Your task to perform on an android device: Clear the cart on costco.com. Add "razer naga" to the cart on costco.com Image 0: 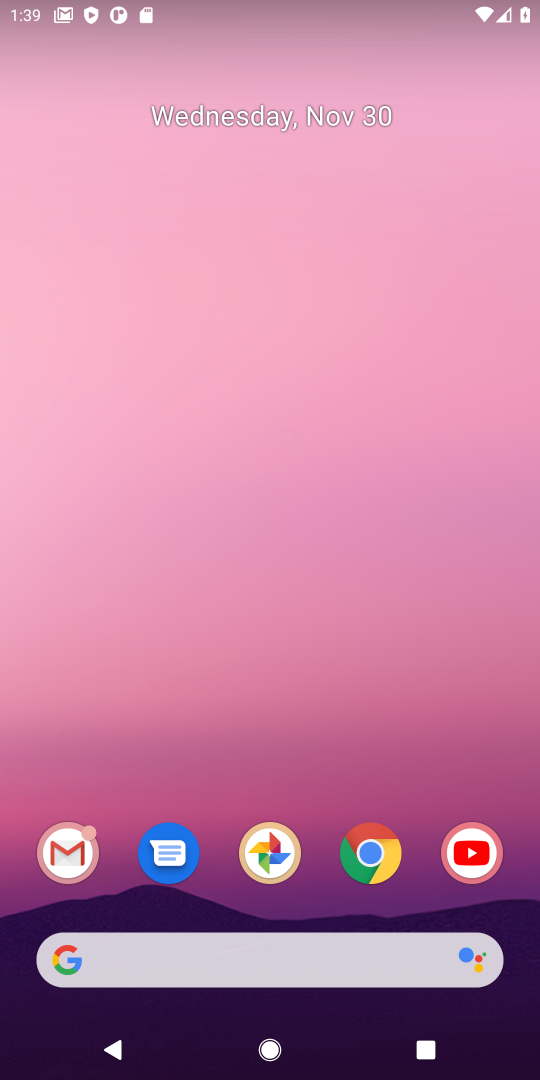
Step 0: click (371, 854)
Your task to perform on an android device: Clear the cart on costco.com. Add "razer naga" to the cart on costco.com Image 1: 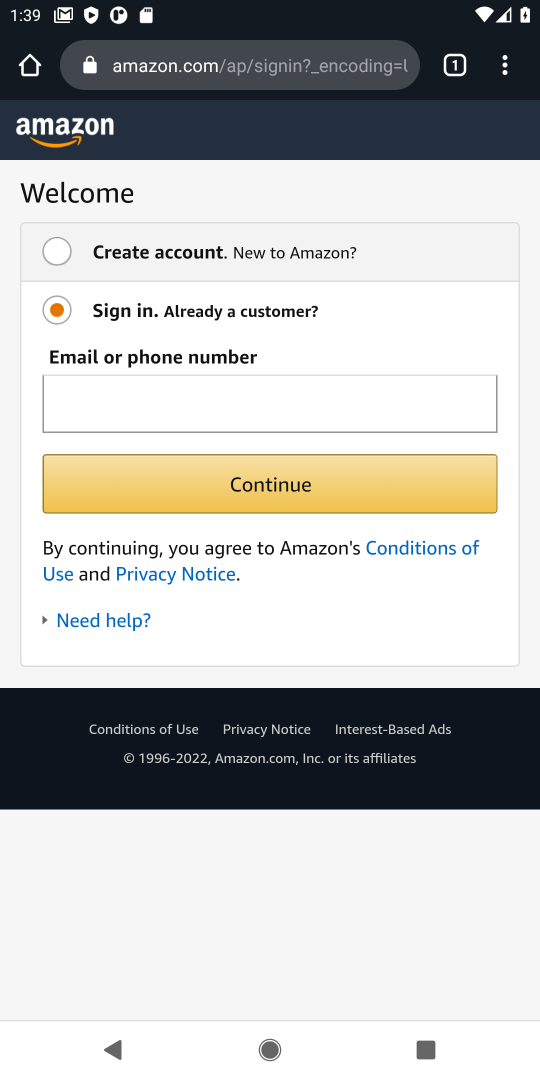
Step 1: click (201, 76)
Your task to perform on an android device: Clear the cart on costco.com. Add "razer naga" to the cart on costco.com Image 2: 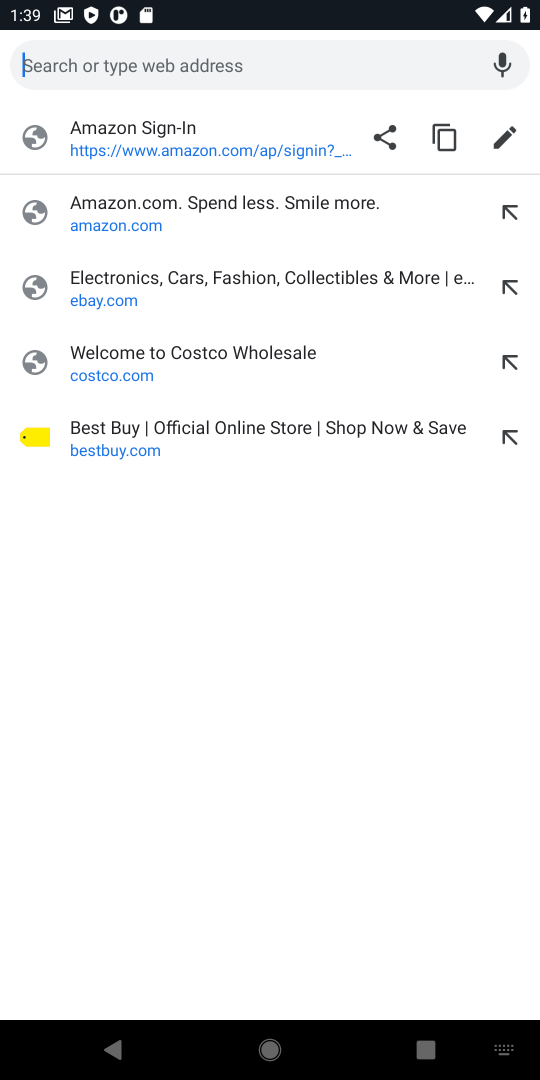
Step 2: click (96, 358)
Your task to perform on an android device: Clear the cart on costco.com. Add "razer naga" to the cart on costco.com Image 3: 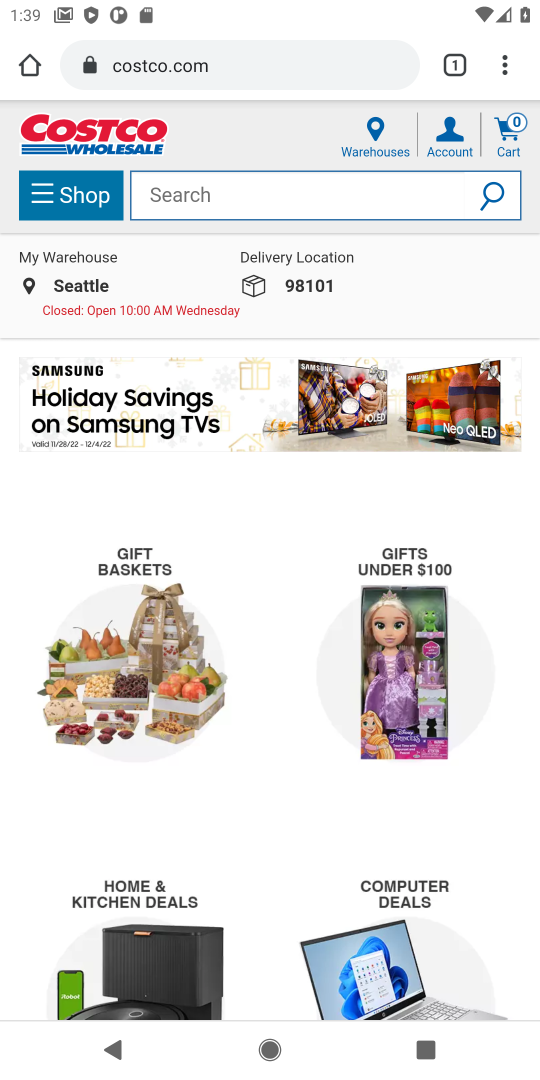
Step 3: click (503, 140)
Your task to perform on an android device: Clear the cart on costco.com. Add "razer naga" to the cart on costco.com Image 4: 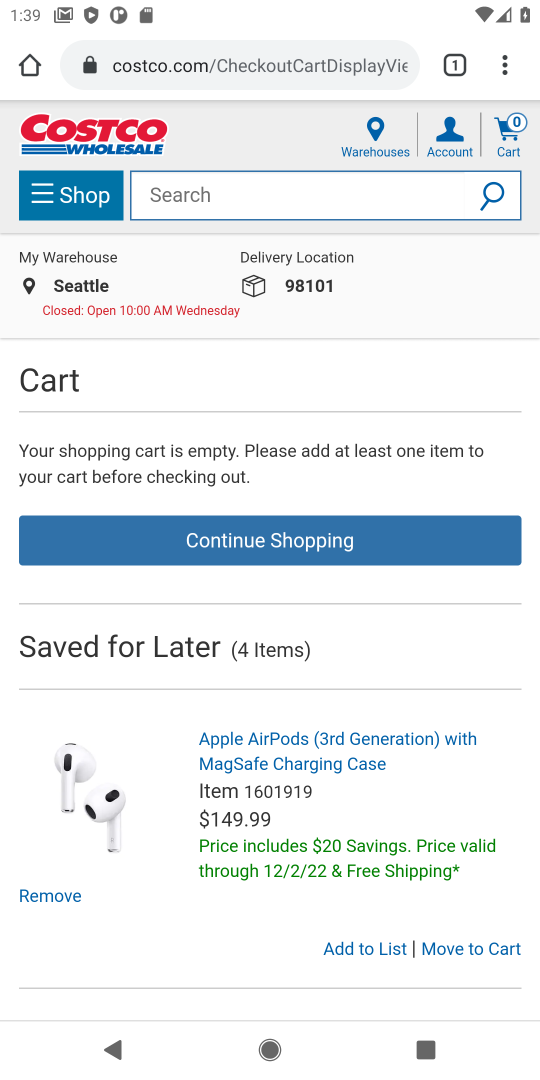
Step 4: click (165, 193)
Your task to perform on an android device: Clear the cart on costco.com. Add "razer naga" to the cart on costco.com Image 5: 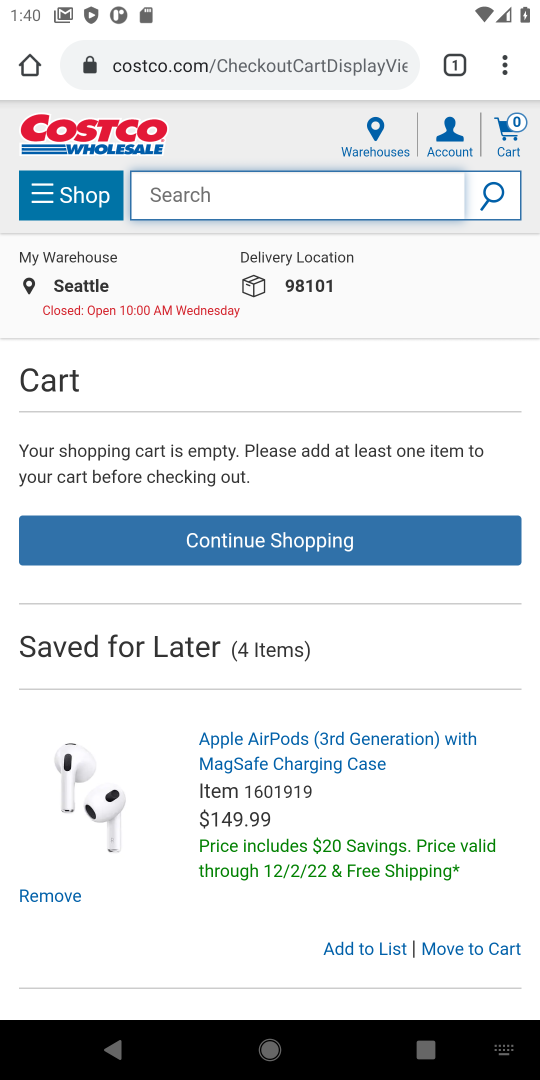
Step 5: type "razer naga"
Your task to perform on an android device: Clear the cart on costco.com. Add "razer naga" to the cart on costco.com Image 6: 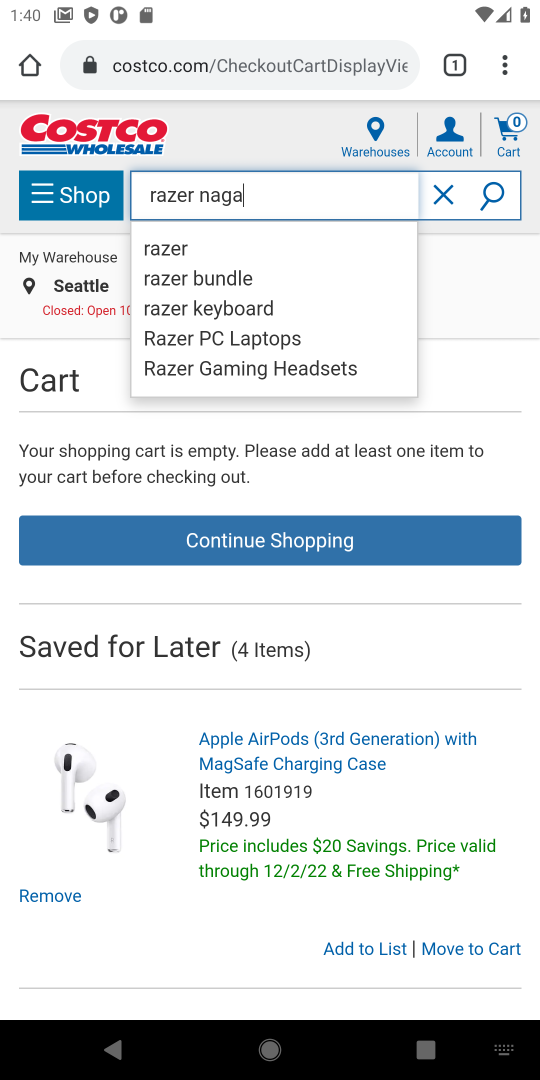
Step 6: click (504, 192)
Your task to perform on an android device: Clear the cart on costco.com. Add "razer naga" to the cart on costco.com Image 7: 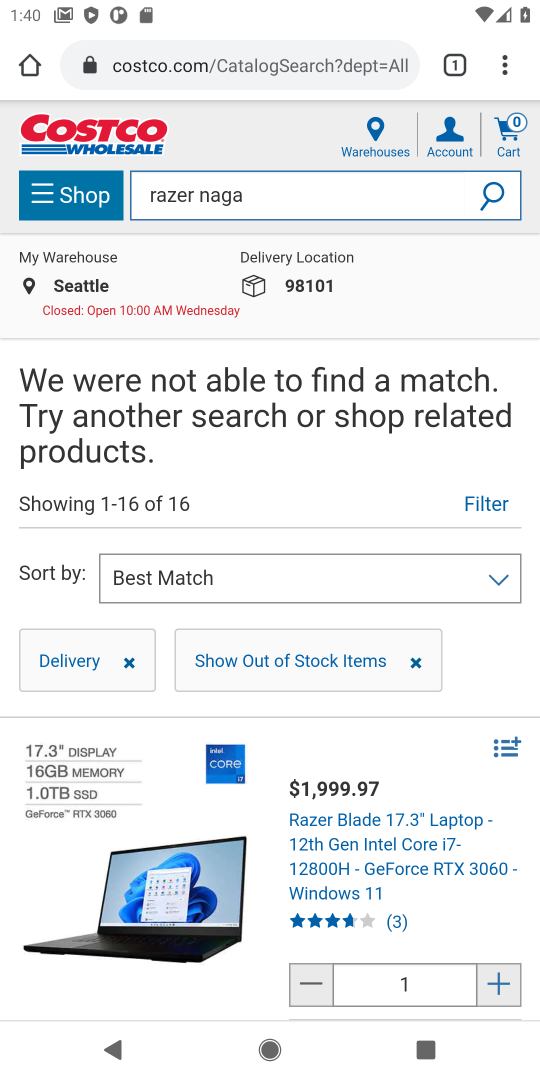
Step 7: task complete